Your task to perform on an android device: Search for Italian restaurants on Maps Image 0: 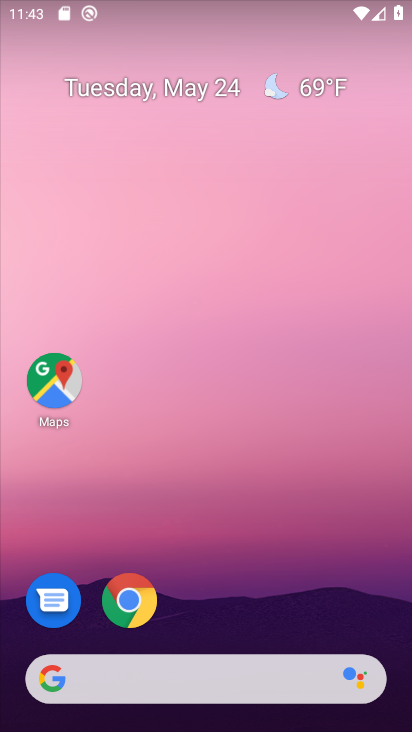
Step 0: drag from (358, 632) to (371, 167)
Your task to perform on an android device: Search for Italian restaurants on Maps Image 1: 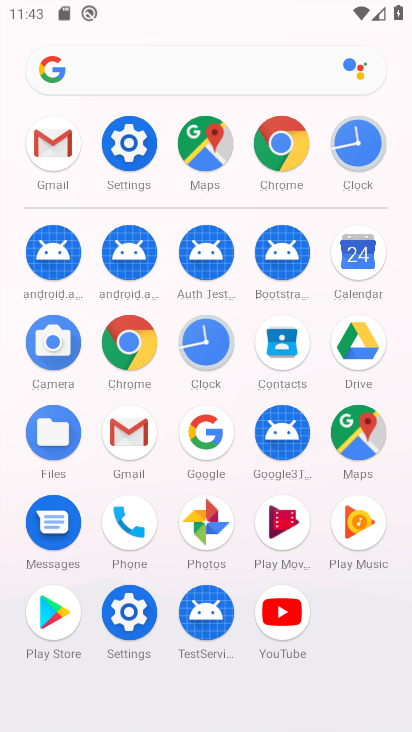
Step 1: click (367, 445)
Your task to perform on an android device: Search for Italian restaurants on Maps Image 2: 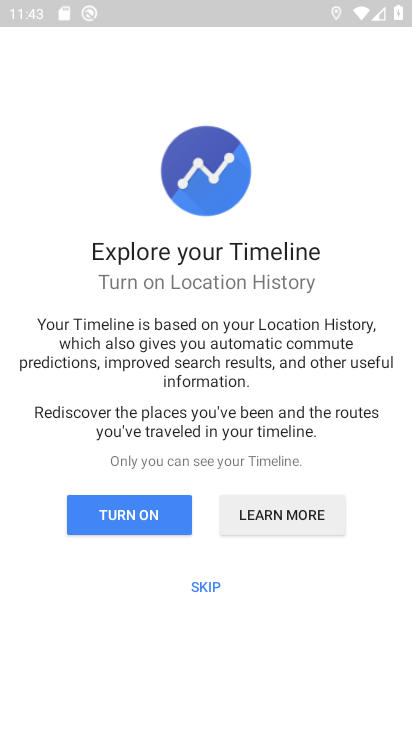
Step 2: click (216, 590)
Your task to perform on an android device: Search for Italian restaurants on Maps Image 3: 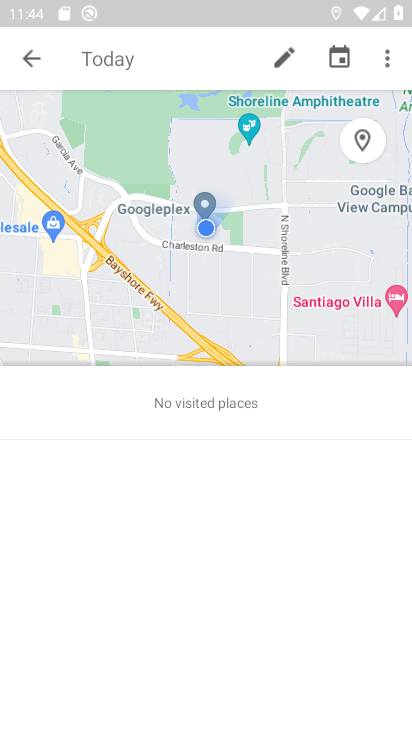
Step 3: click (30, 56)
Your task to perform on an android device: Search for Italian restaurants on Maps Image 4: 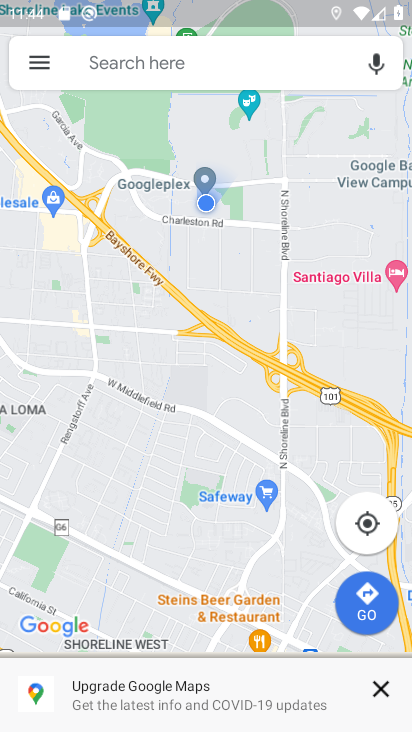
Step 4: click (132, 66)
Your task to perform on an android device: Search for Italian restaurants on Maps Image 5: 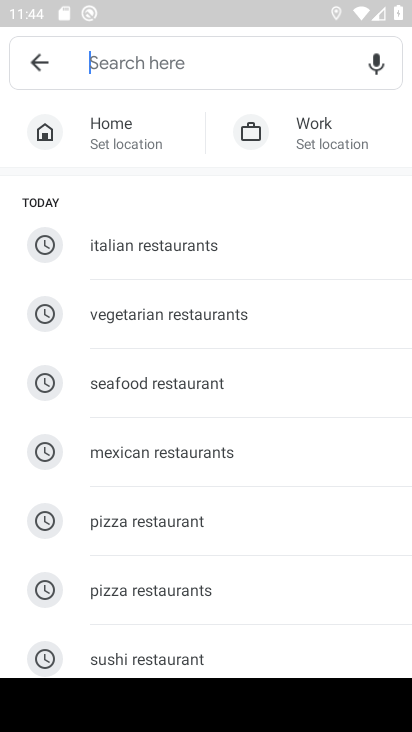
Step 5: type "italian restaurants"
Your task to perform on an android device: Search for Italian restaurants on Maps Image 6: 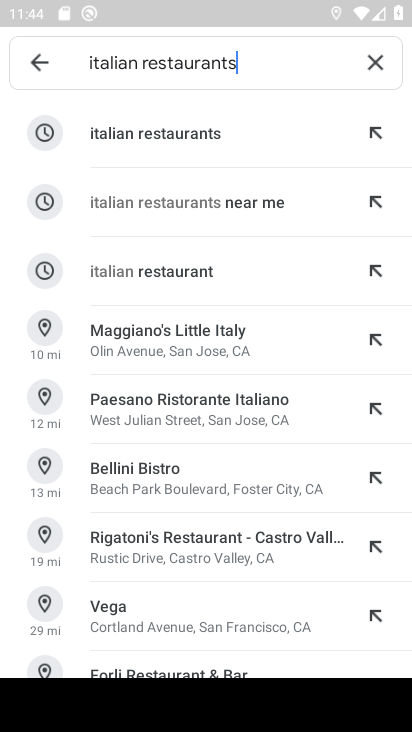
Step 6: click (152, 138)
Your task to perform on an android device: Search for Italian restaurants on Maps Image 7: 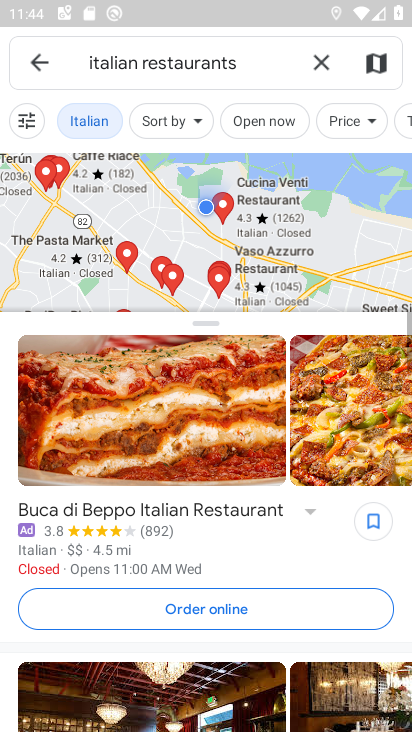
Step 7: task complete